Your task to perform on an android device: turn notification dots on Image 0: 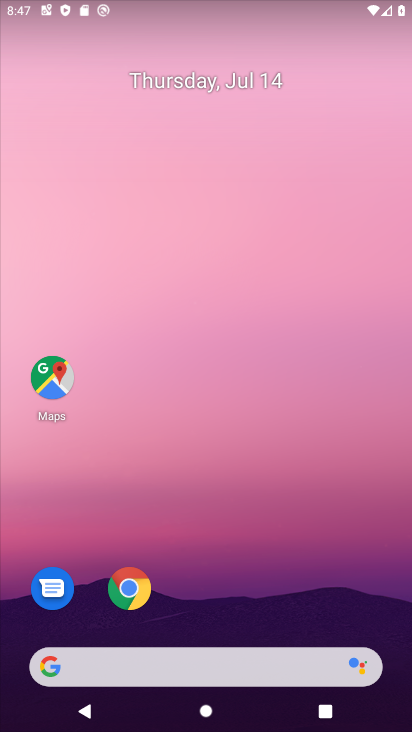
Step 0: drag from (241, 609) to (253, 162)
Your task to perform on an android device: turn notification dots on Image 1: 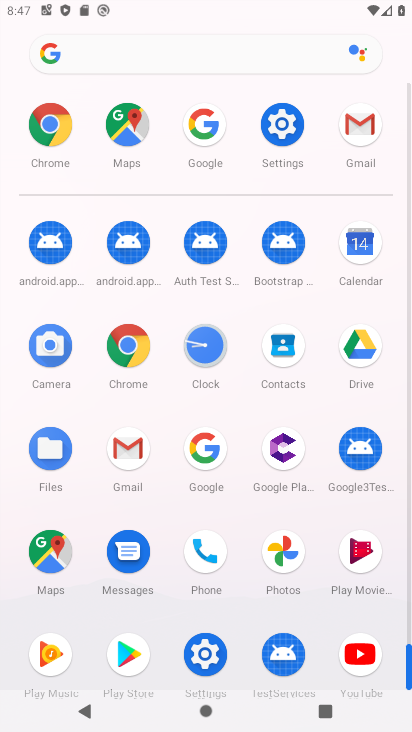
Step 1: click (283, 124)
Your task to perform on an android device: turn notification dots on Image 2: 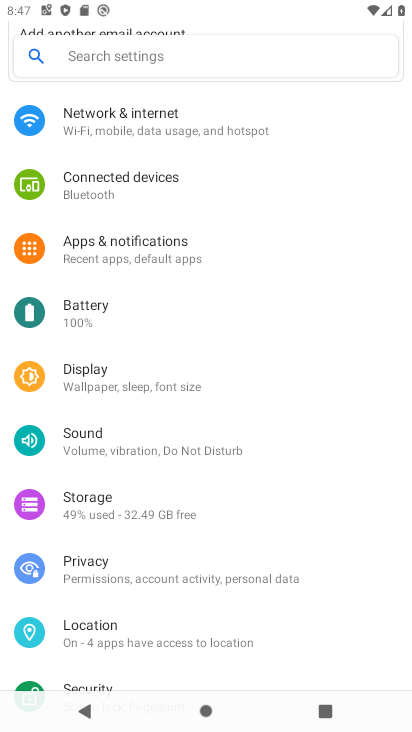
Step 2: click (133, 253)
Your task to perform on an android device: turn notification dots on Image 3: 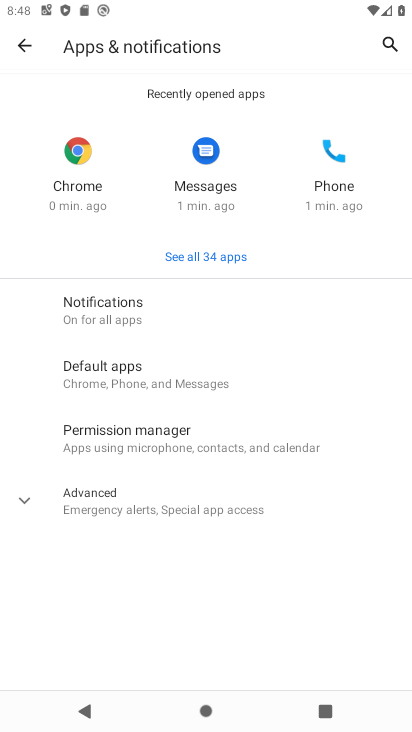
Step 3: click (147, 319)
Your task to perform on an android device: turn notification dots on Image 4: 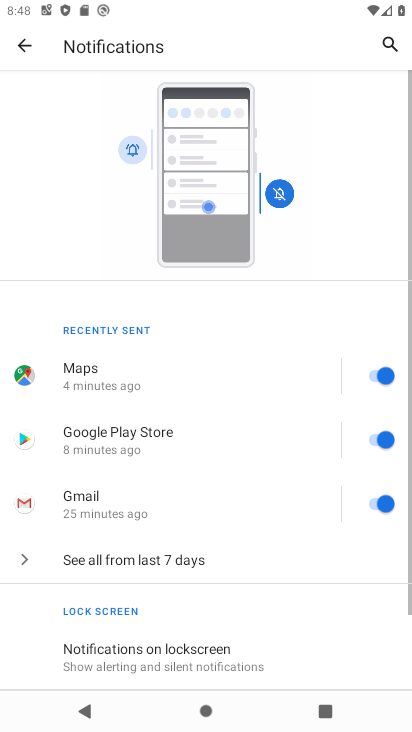
Step 4: drag from (173, 627) to (173, 226)
Your task to perform on an android device: turn notification dots on Image 5: 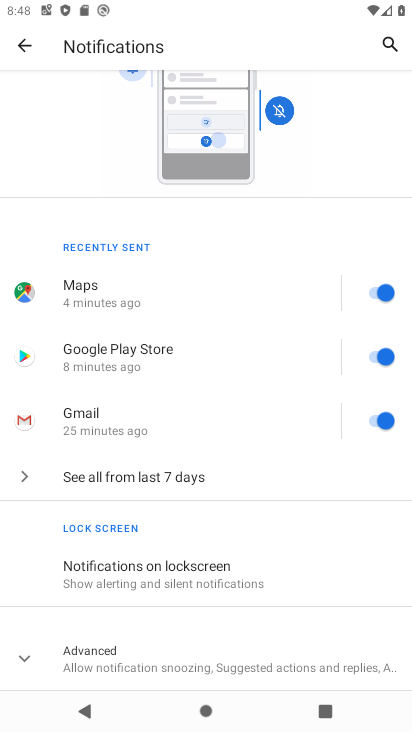
Step 5: click (80, 671)
Your task to perform on an android device: turn notification dots on Image 6: 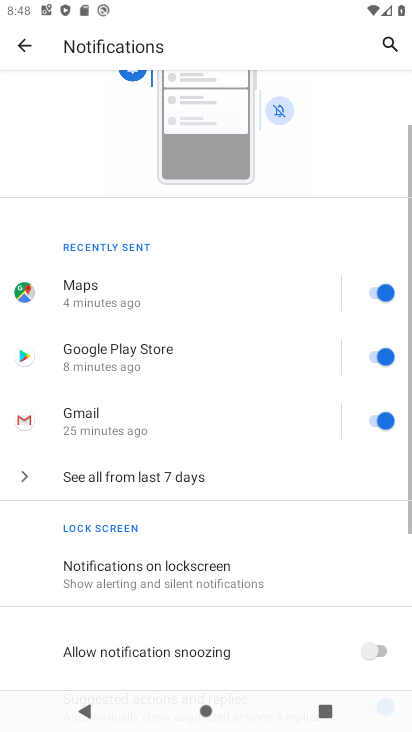
Step 6: drag from (241, 622) to (260, 317)
Your task to perform on an android device: turn notification dots on Image 7: 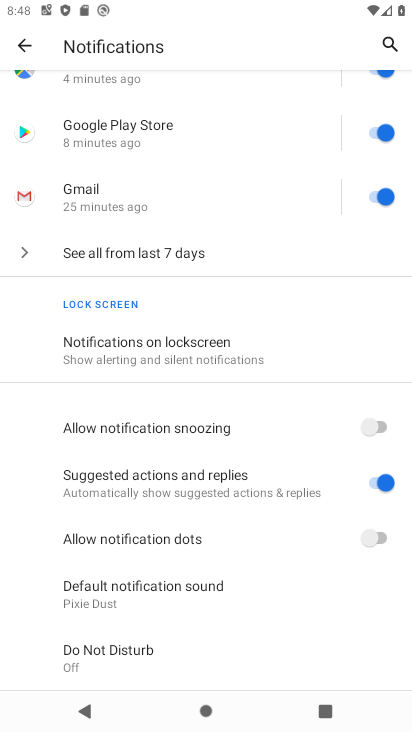
Step 7: click (371, 533)
Your task to perform on an android device: turn notification dots on Image 8: 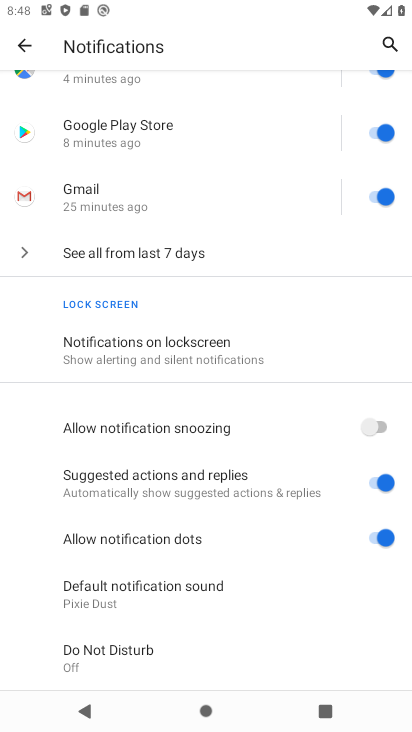
Step 8: task complete